Your task to perform on an android device: turn on bluetooth scan Image 0: 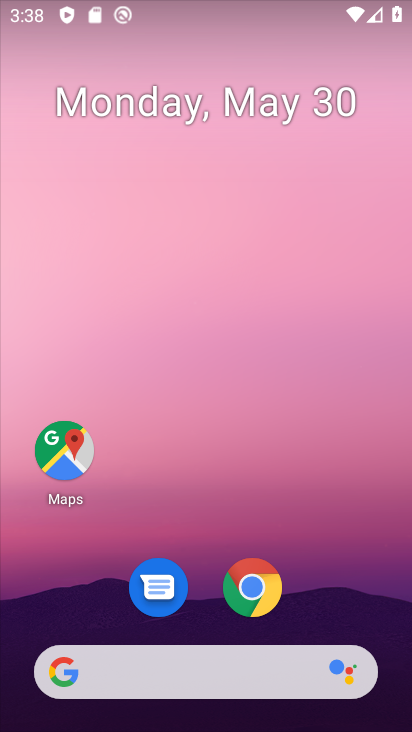
Step 0: drag from (348, 466) to (308, 189)
Your task to perform on an android device: turn on bluetooth scan Image 1: 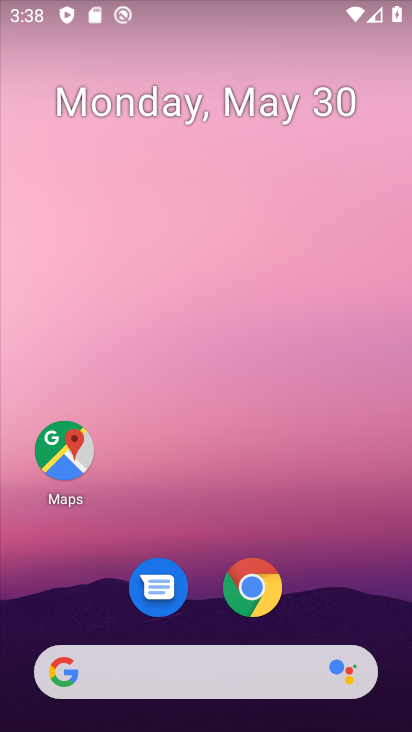
Step 1: drag from (355, 590) to (325, 16)
Your task to perform on an android device: turn on bluetooth scan Image 2: 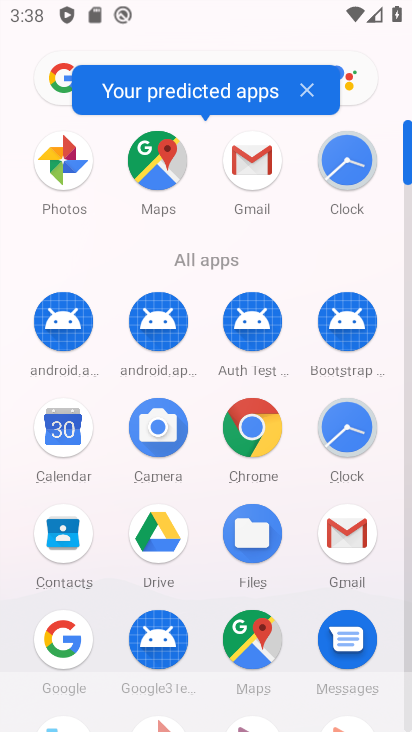
Step 2: click (407, 665)
Your task to perform on an android device: turn on bluetooth scan Image 3: 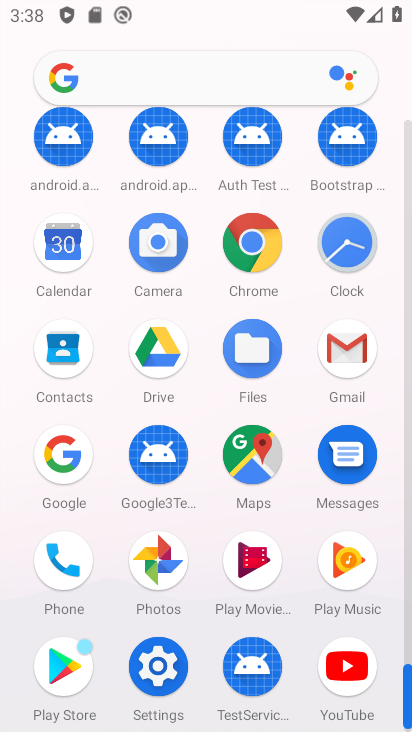
Step 3: click (407, 665)
Your task to perform on an android device: turn on bluetooth scan Image 4: 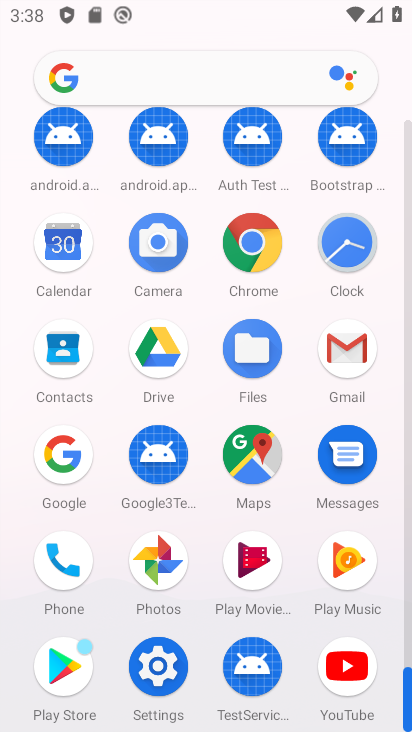
Step 4: click (270, 257)
Your task to perform on an android device: turn on bluetooth scan Image 5: 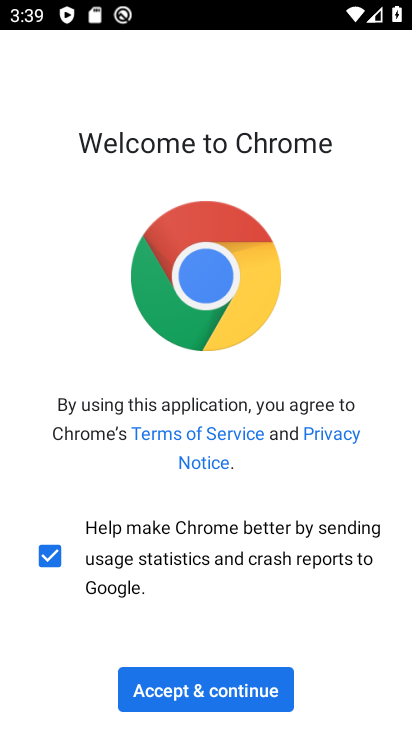
Step 5: press home button
Your task to perform on an android device: turn on bluetooth scan Image 6: 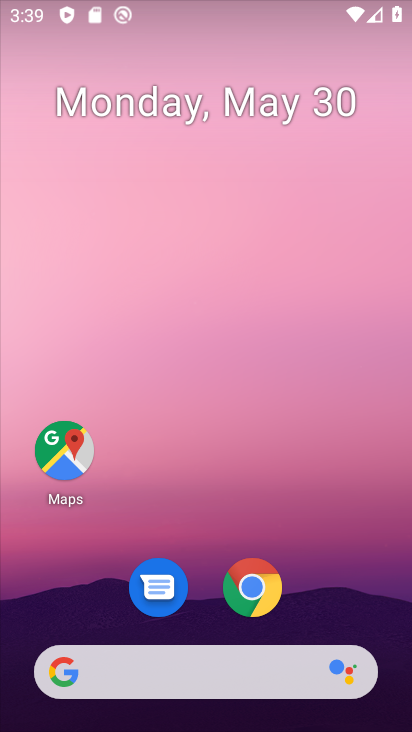
Step 6: drag from (350, 560) to (334, 246)
Your task to perform on an android device: turn on bluetooth scan Image 7: 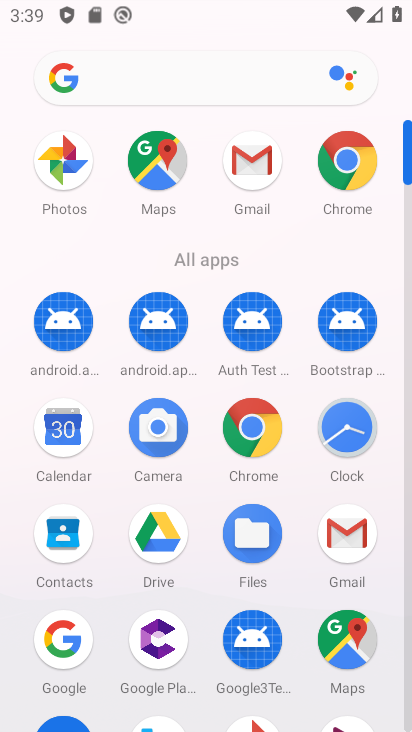
Step 7: click (407, 726)
Your task to perform on an android device: turn on bluetooth scan Image 8: 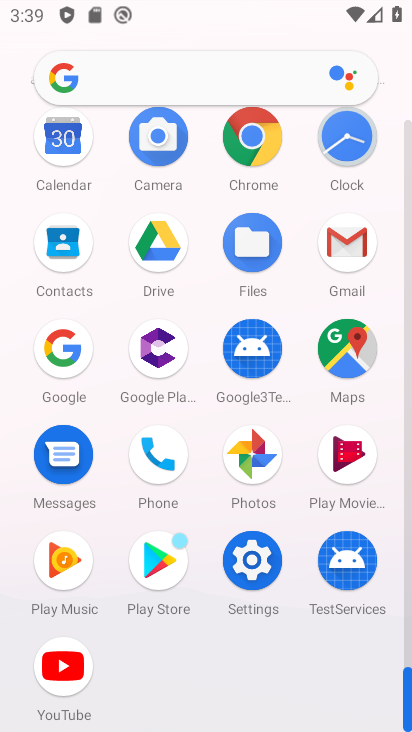
Step 8: click (285, 560)
Your task to perform on an android device: turn on bluetooth scan Image 9: 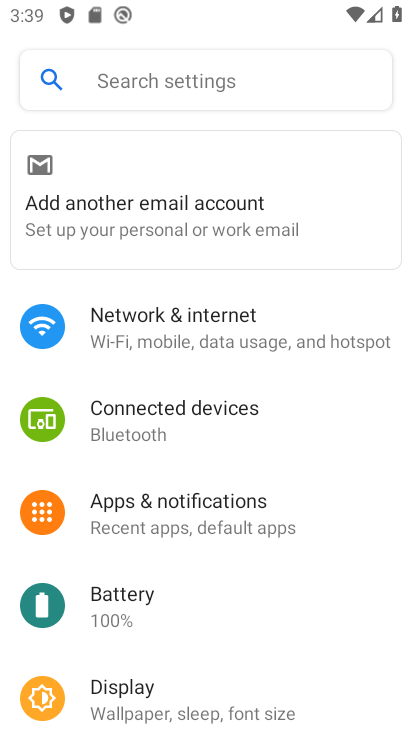
Step 9: drag from (290, 620) to (190, 4)
Your task to perform on an android device: turn on bluetooth scan Image 10: 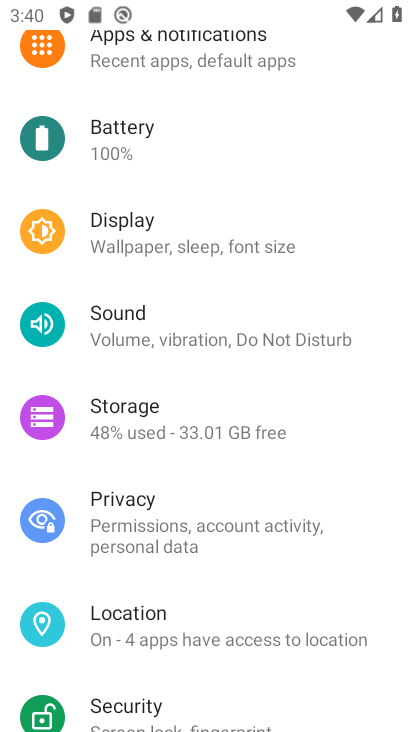
Step 10: click (135, 632)
Your task to perform on an android device: turn on bluetooth scan Image 11: 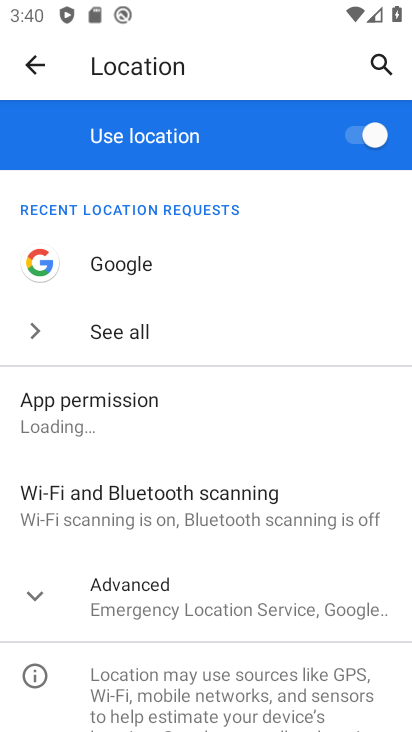
Step 11: click (169, 608)
Your task to perform on an android device: turn on bluetooth scan Image 12: 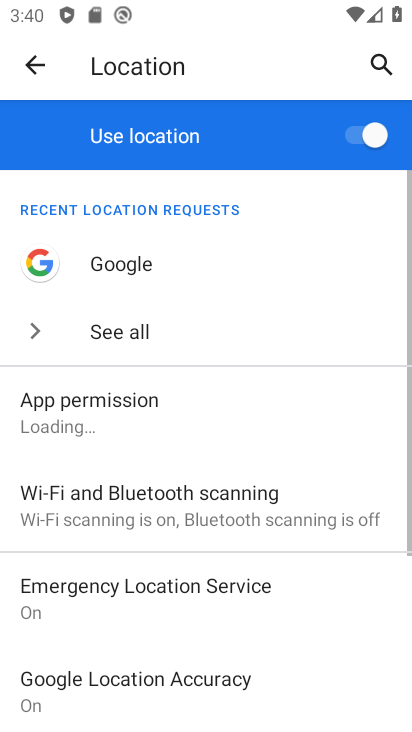
Step 12: drag from (198, 665) to (231, 328)
Your task to perform on an android device: turn on bluetooth scan Image 13: 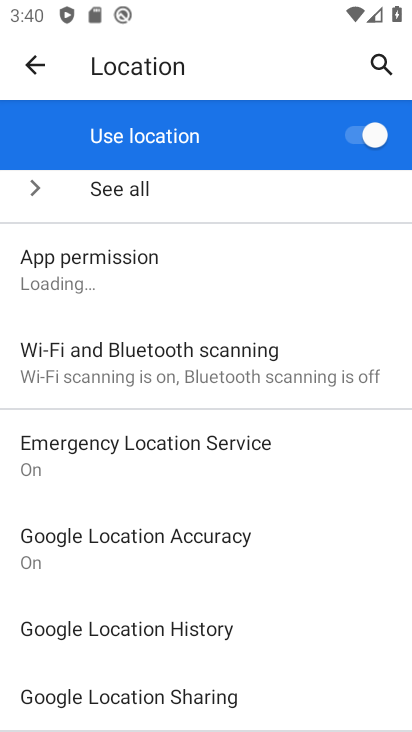
Step 13: click (173, 533)
Your task to perform on an android device: turn on bluetooth scan Image 14: 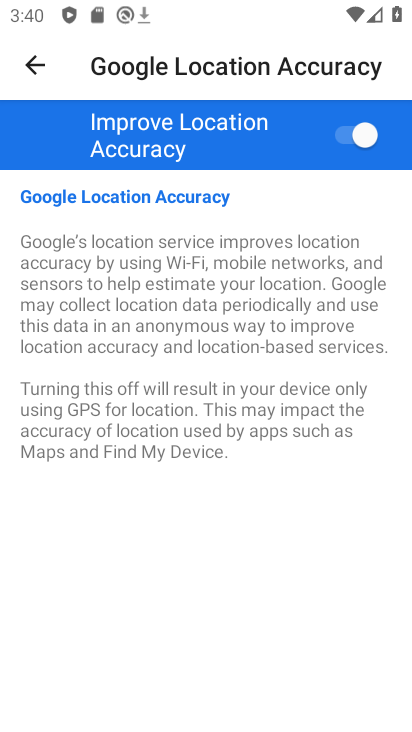
Step 14: click (16, 52)
Your task to perform on an android device: turn on bluetooth scan Image 15: 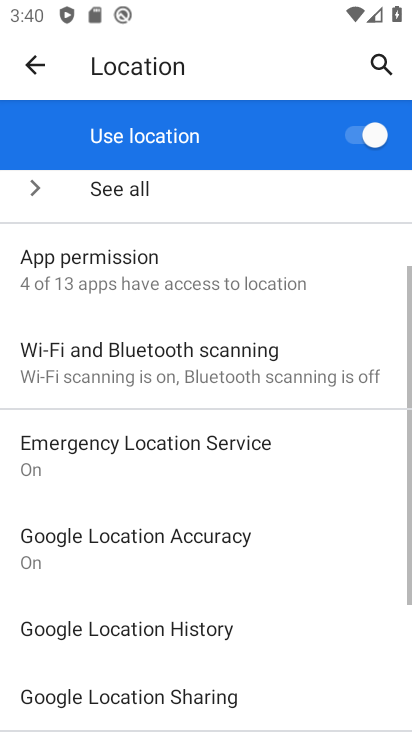
Step 15: click (160, 362)
Your task to perform on an android device: turn on bluetooth scan Image 16: 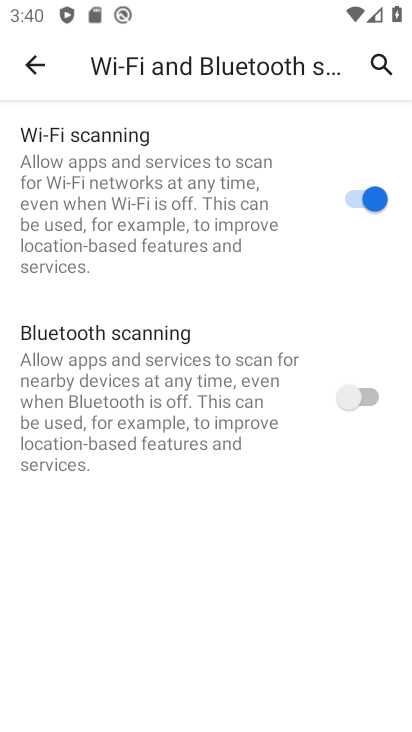
Step 16: click (241, 393)
Your task to perform on an android device: turn on bluetooth scan Image 17: 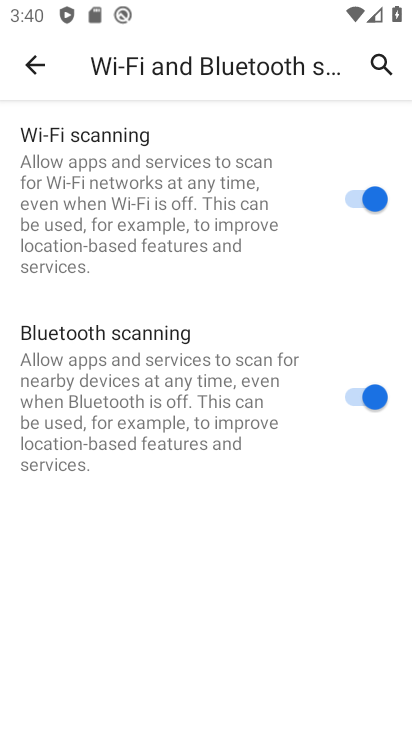
Step 17: task complete